Your task to perform on an android device: What's the weather going to be this weekend? Image 0: 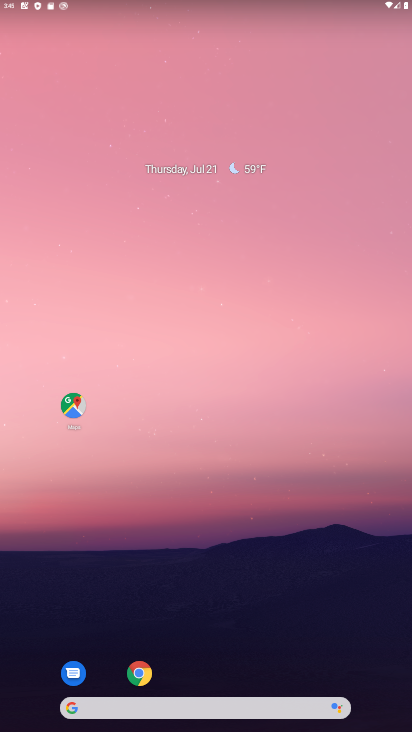
Step 0: click (169, 706)
Your task to perform on an android device: What's the weather going to be this weekend? Image 1: 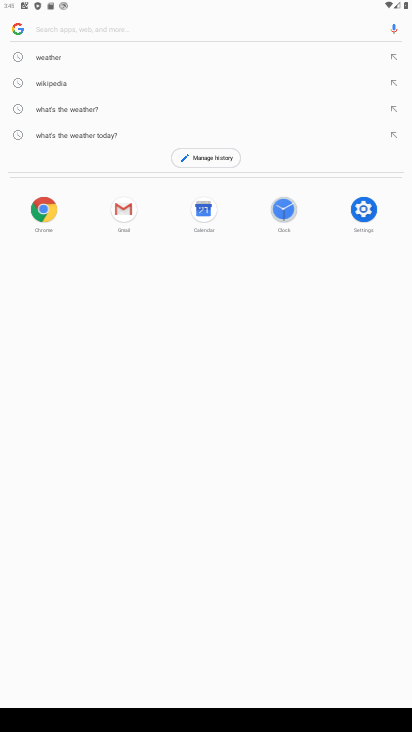
Step 1: type "weather"
Your task to perform on an android device: What's the weather going to be this weekend? Image 2: 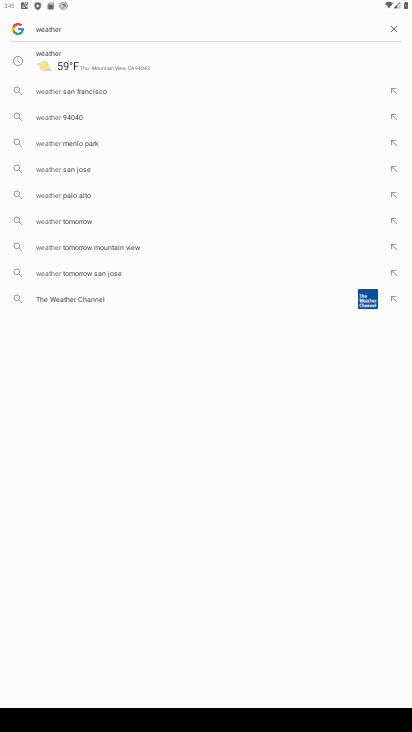
Step 2: click (44, 58)
Your task to perform on an android device: What's the weather going to be this weekend? Image 3: 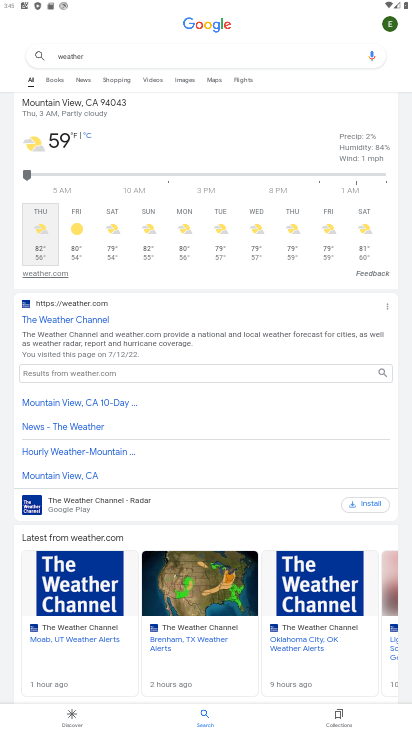
Step 3: task complete